Your task to perform on an android device: turn on javascript in the chrome app Image 0: 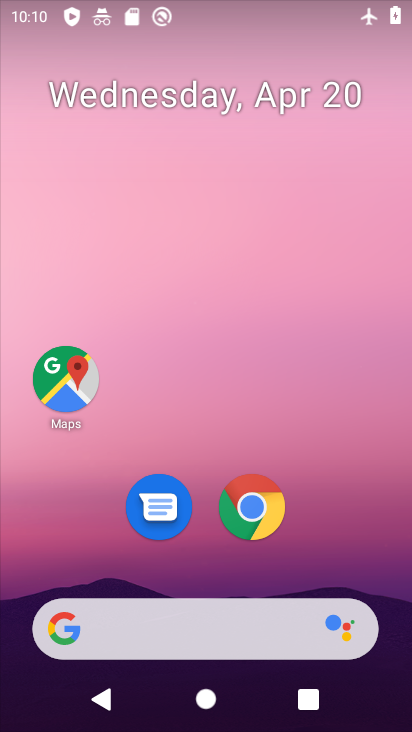
Step 0: drag from (174, 454) to (174, 138)
Your task to perform on an android device: turn on javascript in the chrome app Image 1: 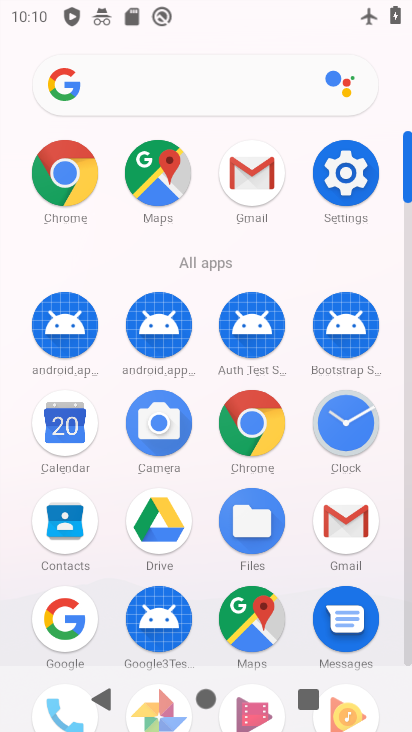
Step 1: click (247, 421)
Your task to perform on an android device: turn on javascript in the chrome app Image 2: 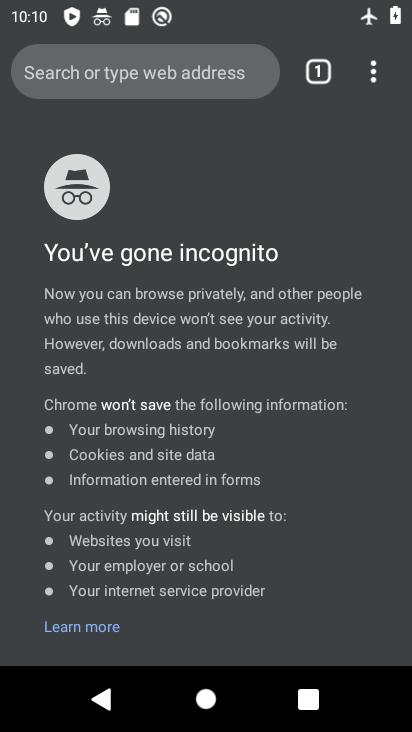
Step 2: click (378, 71)
Your task to perform on an android device: turn on javascript in the chrome app Image 3: 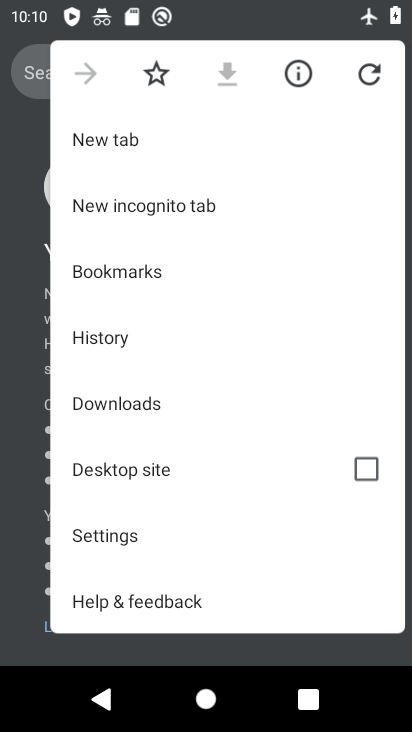
Step 3: drag from (176, 520) to (176, 221)
Your task to perform on an android device: turn on javascript in the chrome app Image 4: 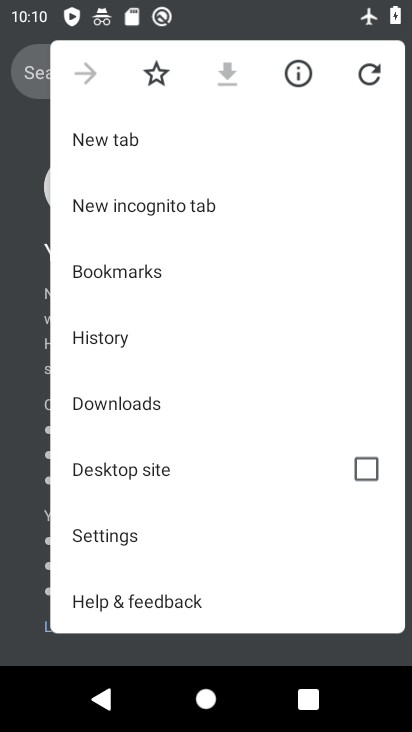
Step 4: click (108, 532)
Your task to perform on an android device: turn on javascript in the chrome app Image 5: 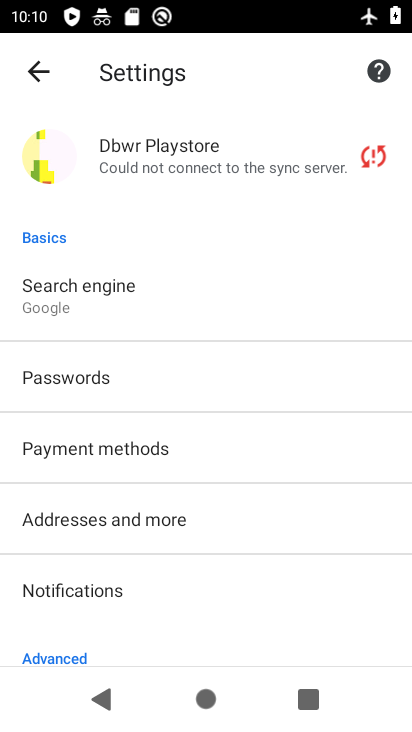
Step 5: drag from (172, 620) to (194, 372)
Your task to perform on an android device: turn on javascript in the chrome app Image 6: 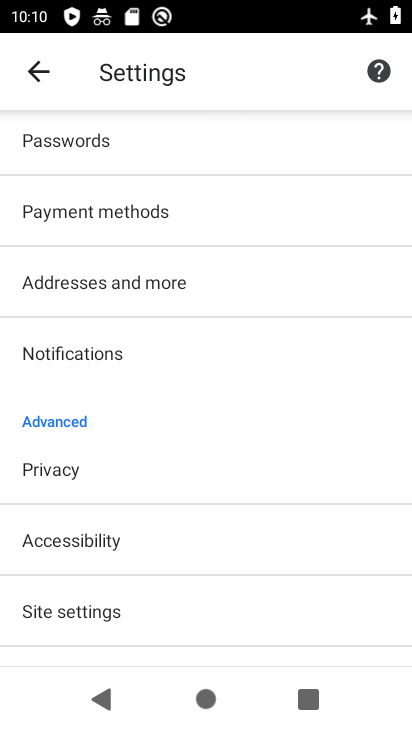
Step 6: click (102, 610)
Your task to perform on an android device: turn on javascript in the chrome app Image 7: 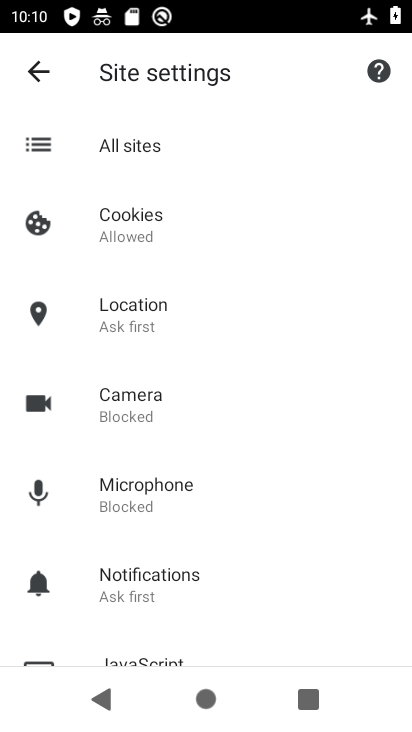
Step 7: drag from (215, 522) to (240, 197)
Your task to perform on an android device: turn on javascript in the chrome app Image 8: 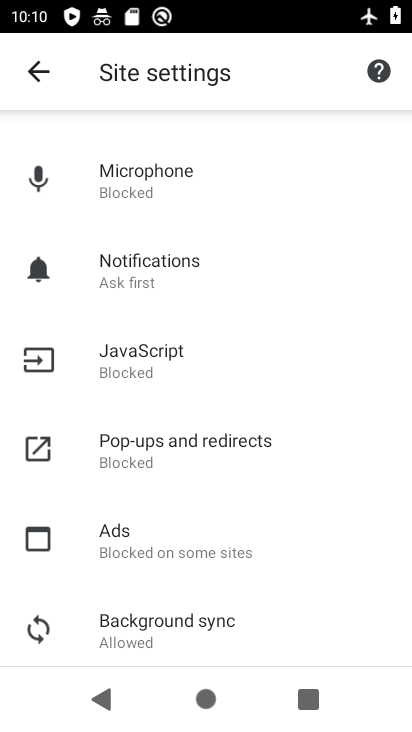
Step 8: click (146, 350)
Your task to perform on an android device: turn on javascript in the chrome app Image 9: 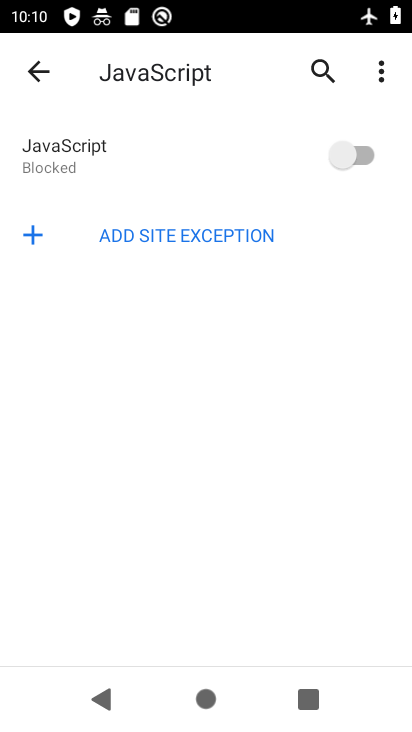
Step 9: click (347, 156)
Your task to perform on an android device: turn on javascript in the chrome app Image 10: 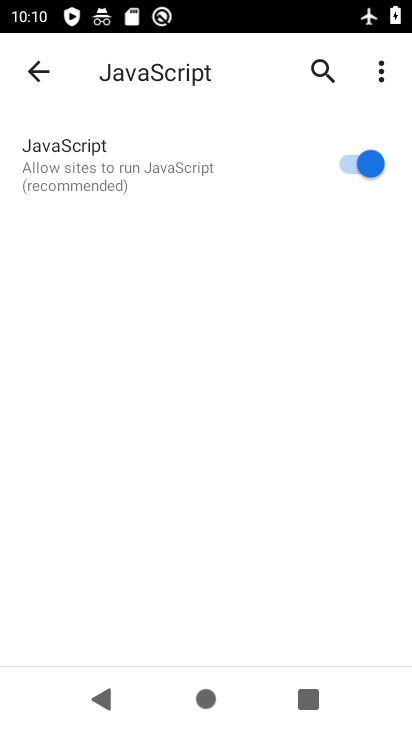
Step 10: task complete